Your task to perform on an android device: change the upload size in google photos Image 0: 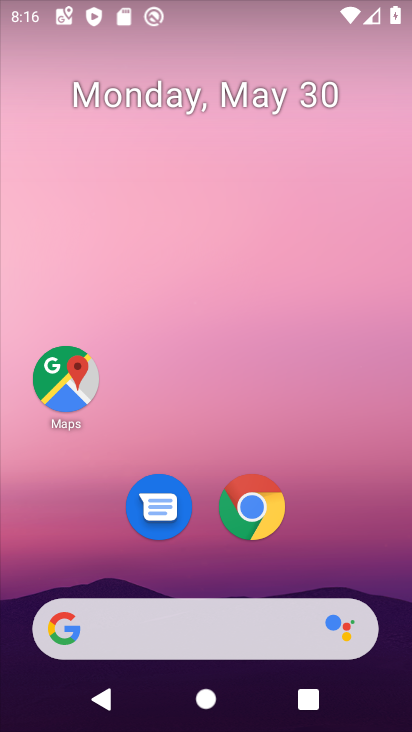
Step 0: drag from (184, 583) to (195, 157)
Your task to perform on an android device: change the upload size in google photos Image 1: 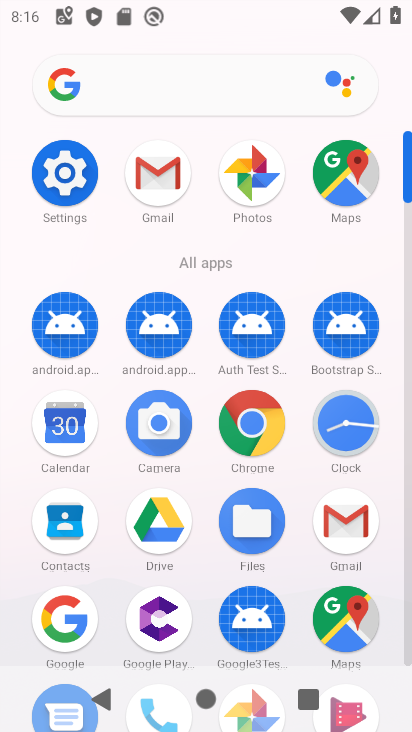
Step 1: drag from (220, 564) to (212, 312)
Your task to perform on an android device: change the upload size in google photos Image 2: 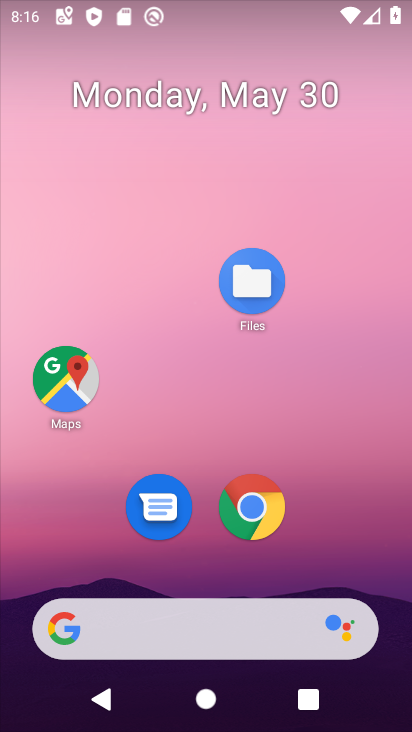
Step 2: drag from (187, 591) to (192, 210)
Your task to perform on an android device: change the upload size in google photos Image 3: 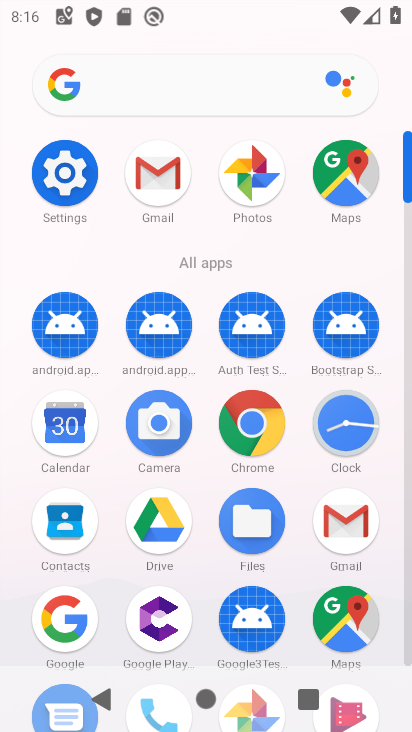
Step 3: drag from (196, 587) to (206, 341)
Your task to perform on an android device: change the upload size in google photos Image 4: 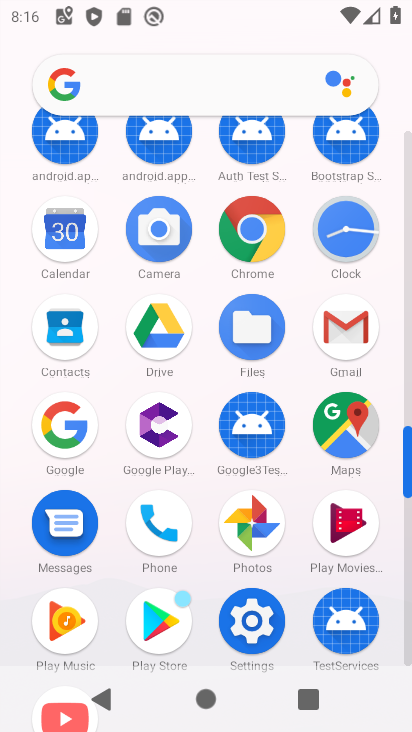
Step 4: click (239, 533)
Your task to perform on an android device: change the upload size in google photos Image 5: 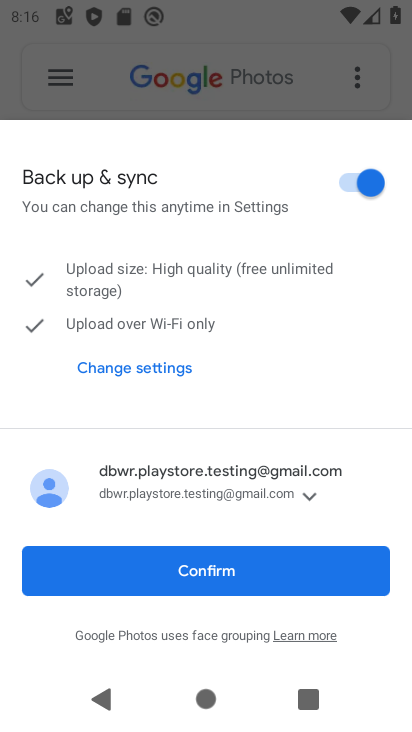
Step 5: click (201, 574)
Your task to perform on an android device: change the upload size in google photos Image 6: 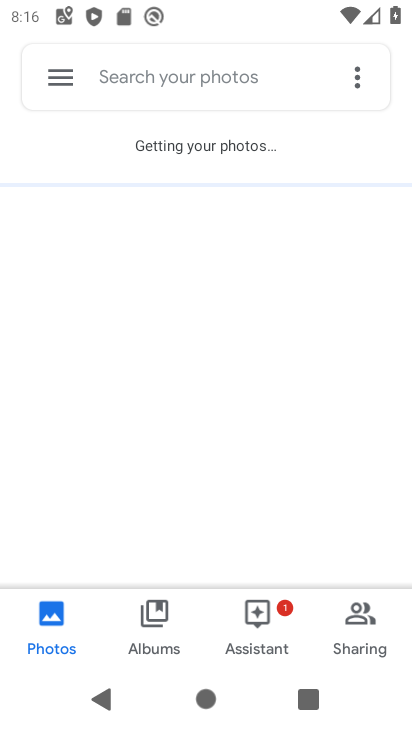
Step 6: click (50, 66)
Your task to perform on an android device: change the upload size in google photos Image 7: 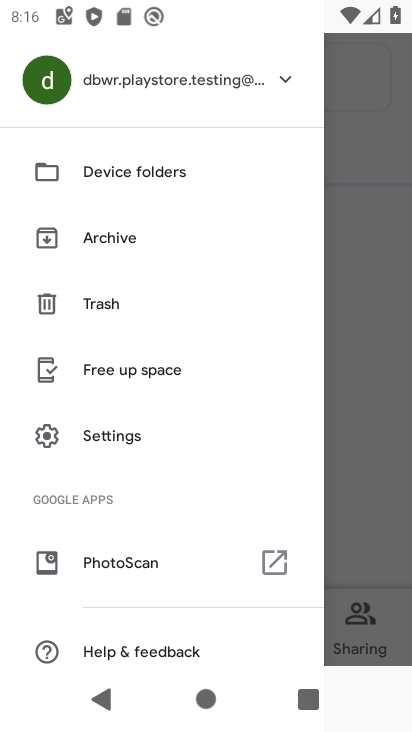
Step 7: click (134, 447)
Your task to perform on an android device: change the upload size in google photos Image 8: 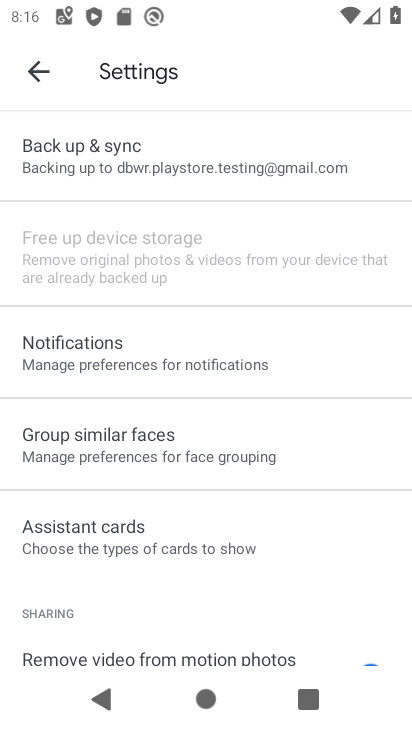
Step 8: click (119, 170)
Your task to perform on an android device: change the upload size in google photos Image 9: 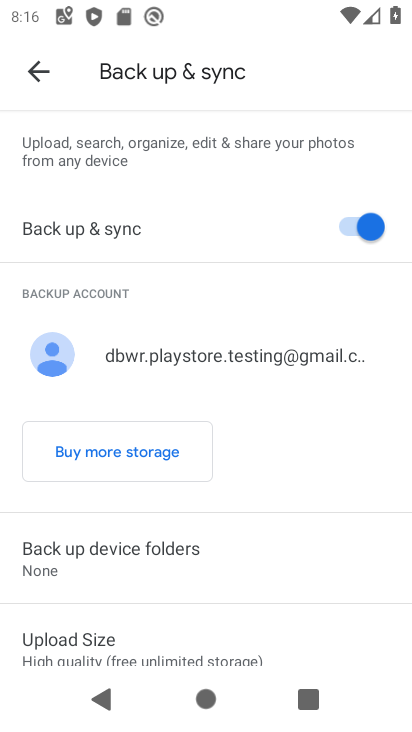
Step 9: drag from (146, 625) to (158, 475)
Your task to perform on an android device: change the upload size in google photos Image 10: 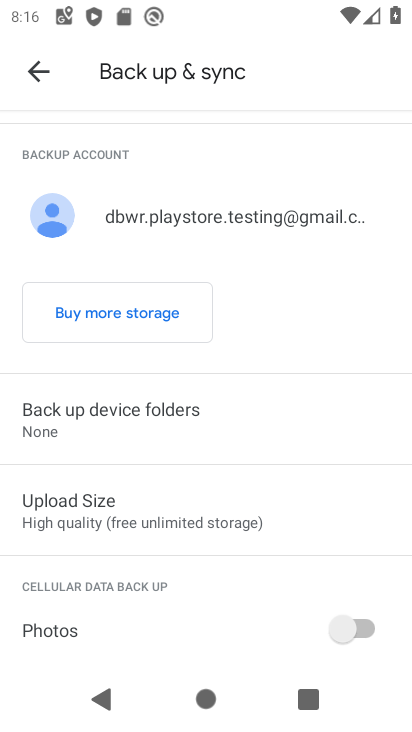
Step 10: click (114, 523)
Your task to perform on an android device: change the upload size in google photos Image 11: 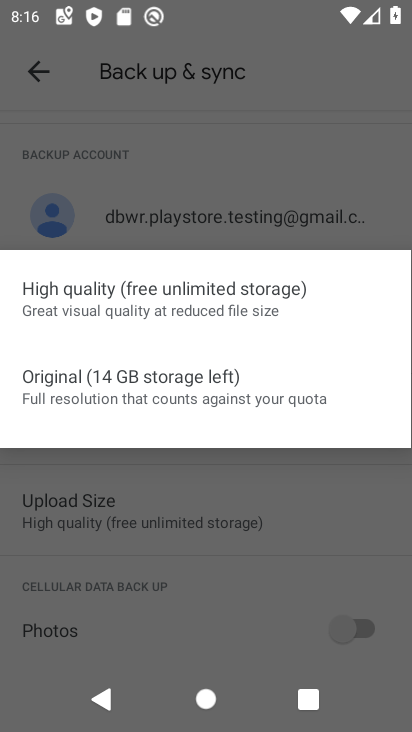
Step 11: click (93, 360)
Your task to perform on an android device: change the upload size in google photos Image 12: 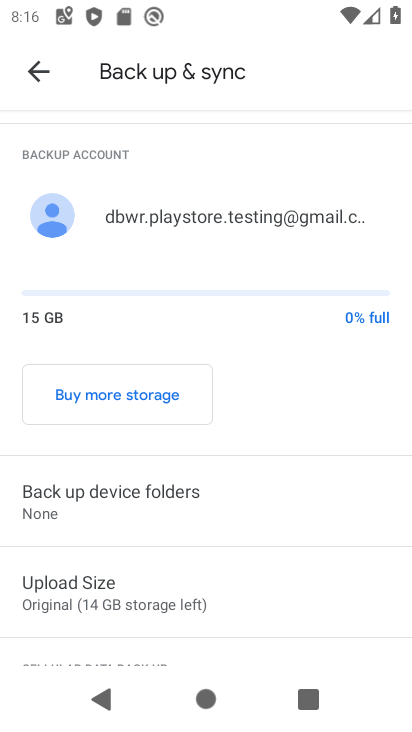
Step 12: task complete